Your task to perform on an android device: Search for sushi restaurants on Maps Image 0: 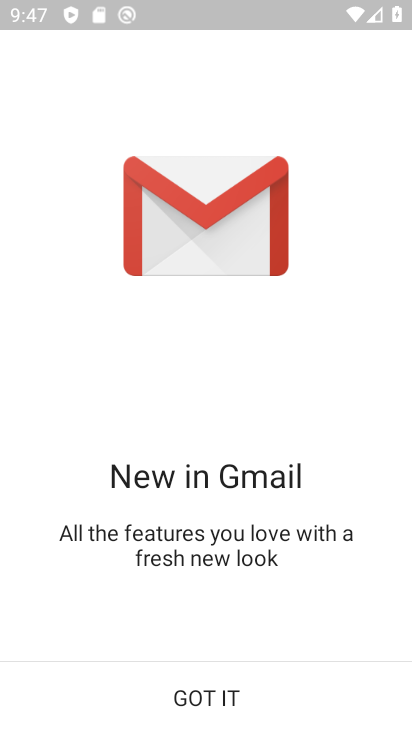
Step 0: press home button
Your task to perform on an android device: Search for sushi restaurants on Maps Image 1: 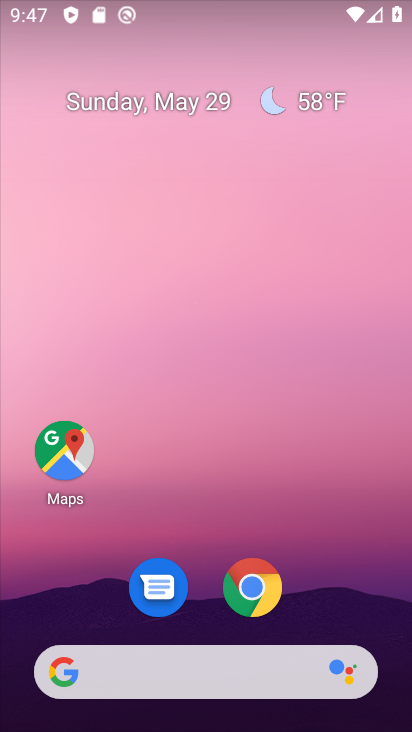
Step 1: drag from (354, 614) to (314, 57)
Your task to perform on an android device: Search for sushi restaurants on Maps Image 2: 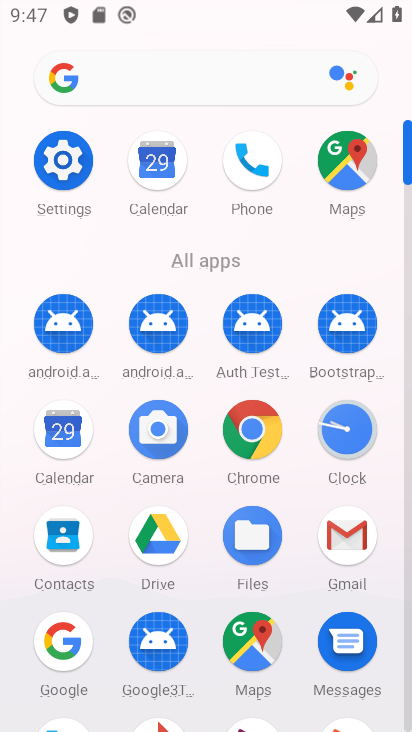
Step 2: click (359, 161)
Your task to perform on an android device: Search for sushi restaurants on Maps Image 3: 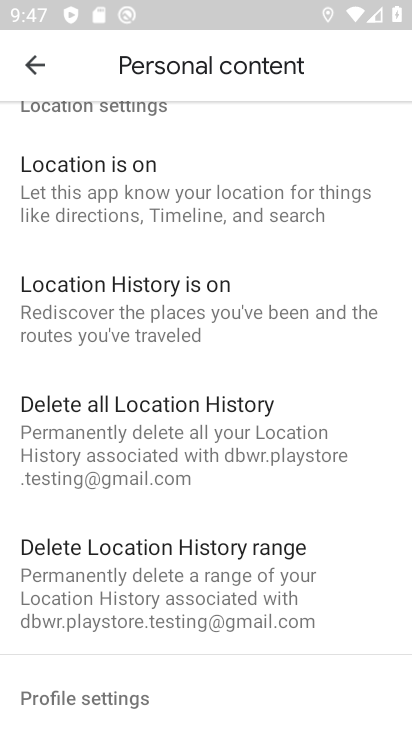
Step 3: click (28, 69)
Your task to perform on an android device: Search for sushi restaurants on Maps Image 4: 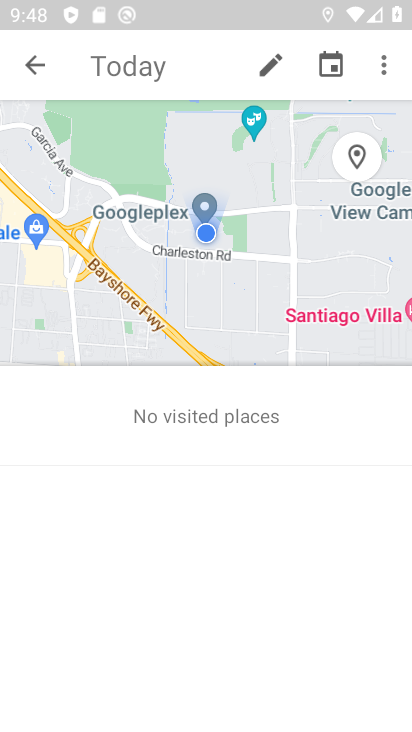
Step 4: click (28, 69)
Your task to perform on an android device: Search for sushi restaurants on Maps Image 5: 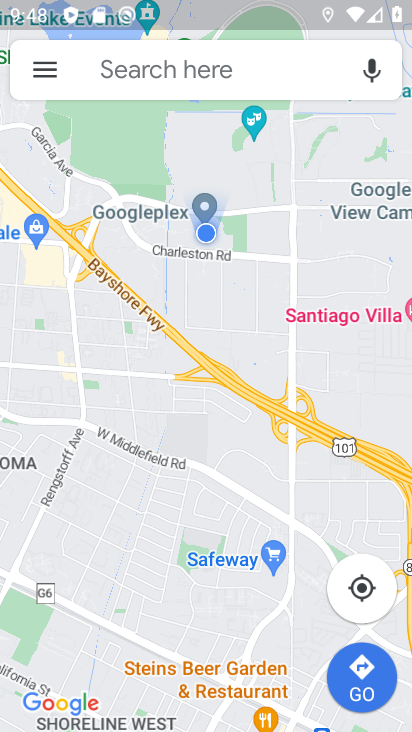
Step 5: click (123, 89)
Your task to perform on an android device: Search for sushi restaurants on Maps Image 6: 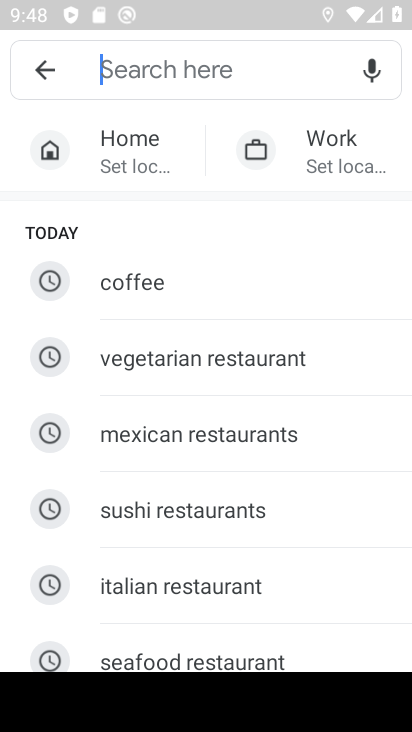
Step 6: click (241, 507)
Your task to perform on an android device: Search for sushi restaurants on Maps Image 7: 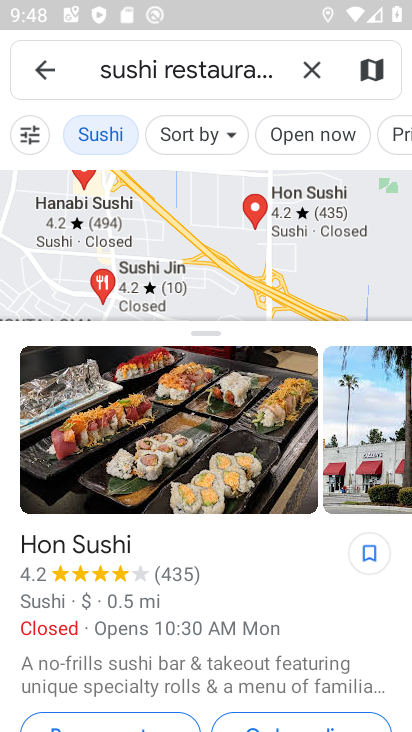
Step 7: task complete